Your task to perform on an android device: star an email in the gmail app Image 0: 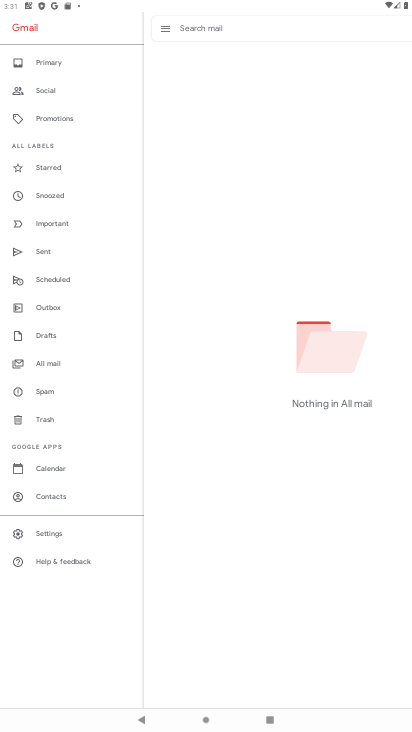
Step 0: press home button
Your task to perform on an android device: star an email in the gmail app Image 1: 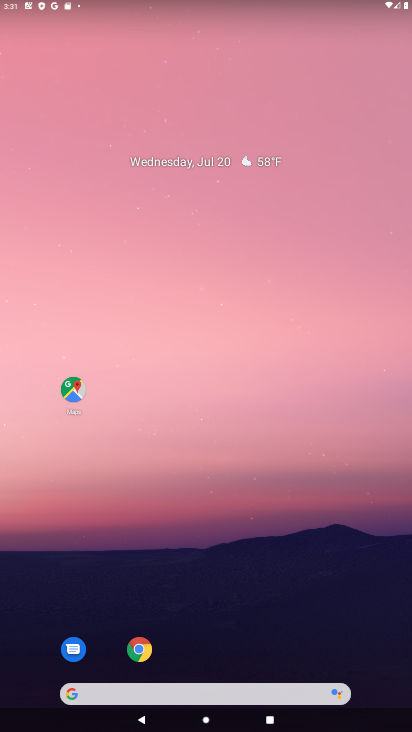
Step 1: drag from (227, 716) to (227, 276)
Your task to perform on an android device: star an email in the gmail app Image 2: 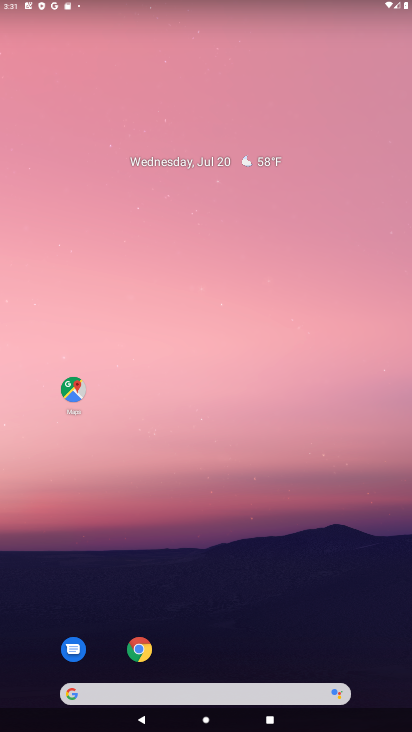
Step 2: drag from (224, 723) to (223, 257)
Your task to perform on an android device: star an email in the gmail app Image 3: 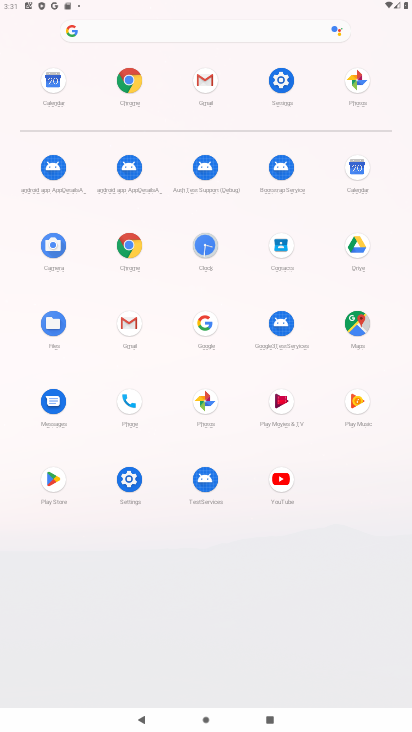
Step 3: click (124, 325)
Your task to perform on an android device: star an email in the gmail app Image 4: 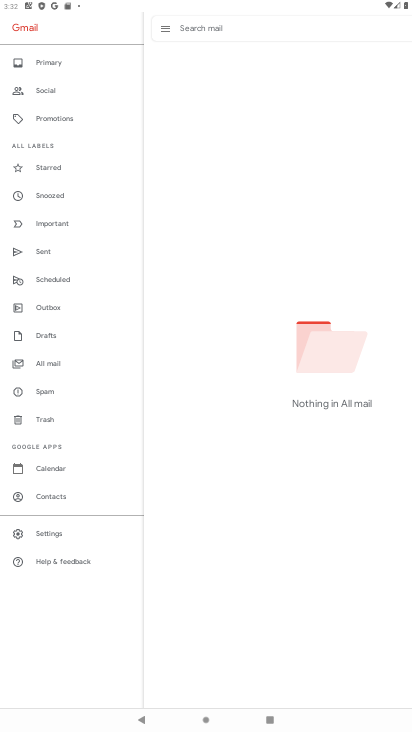
Step 4: click (45, 60)
Your task to perform on an android device: star an email in the gmail app Image 5: 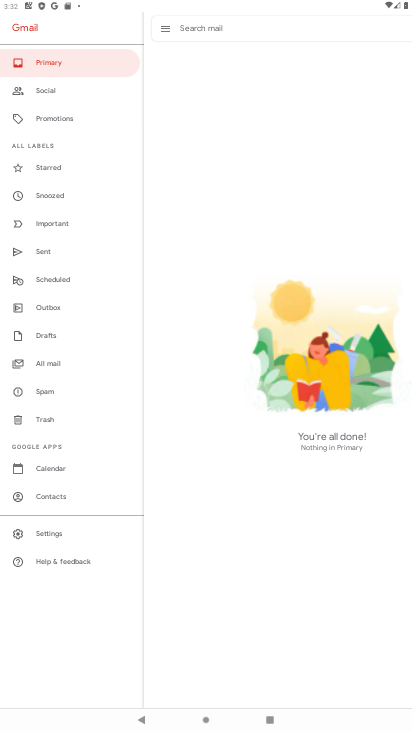
Step 5: task complete